Your task to perform on an android device: Add "logitech g pro" to the cart on amazon.com Image 0: 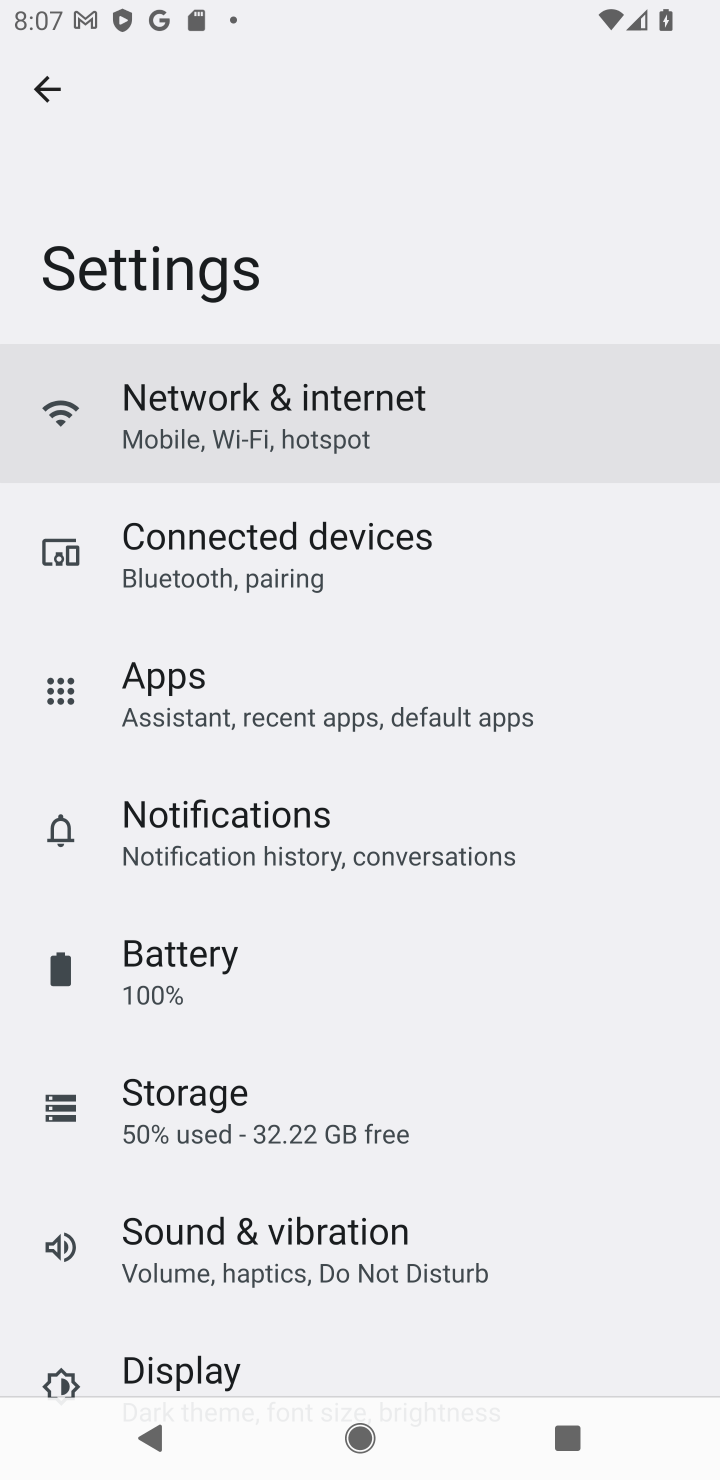
Step 0: press home button
Your task to perform on an android device: Add "logitech g pro" to the cart on amazon.com Image 1: 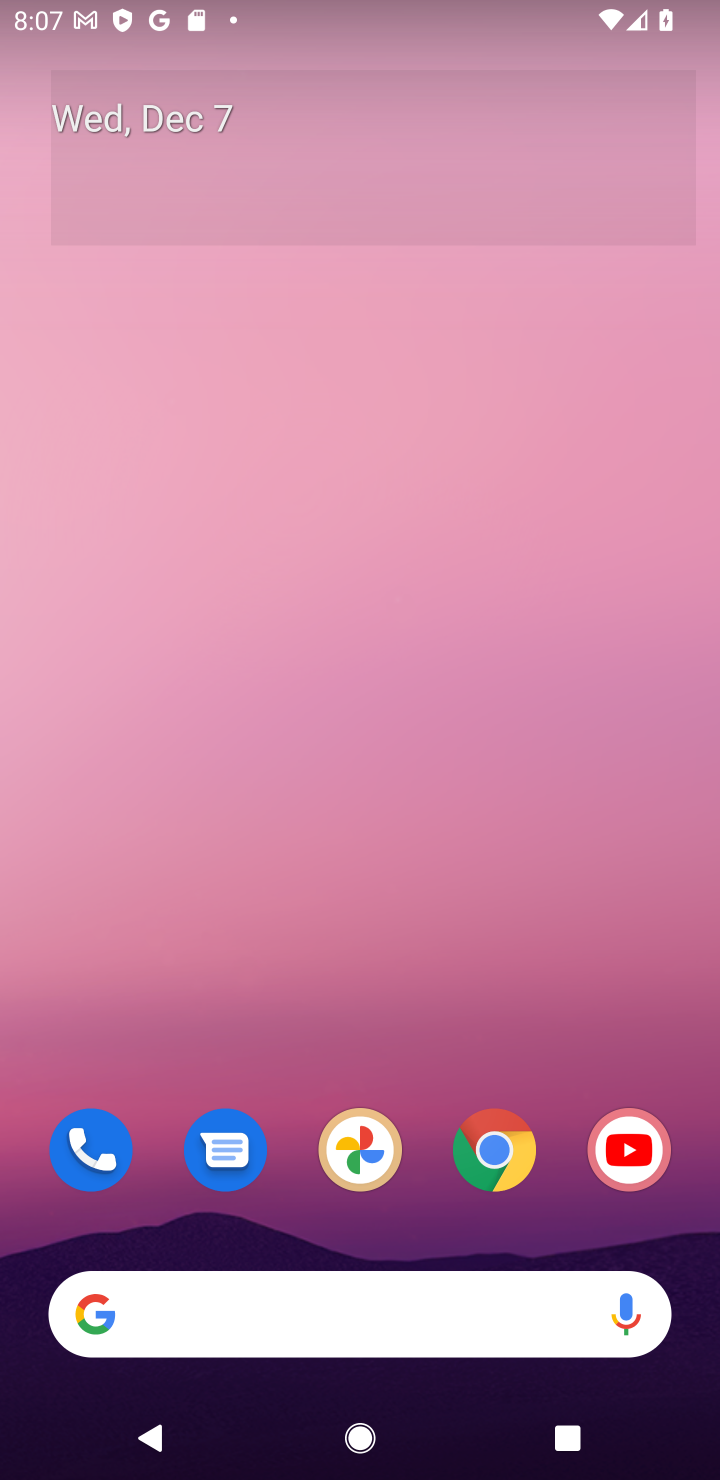
Step 1: click (505, 1141)
Your task to perform on an android device: Add "logitech g pro" to the cart on amazon.com Image 2: 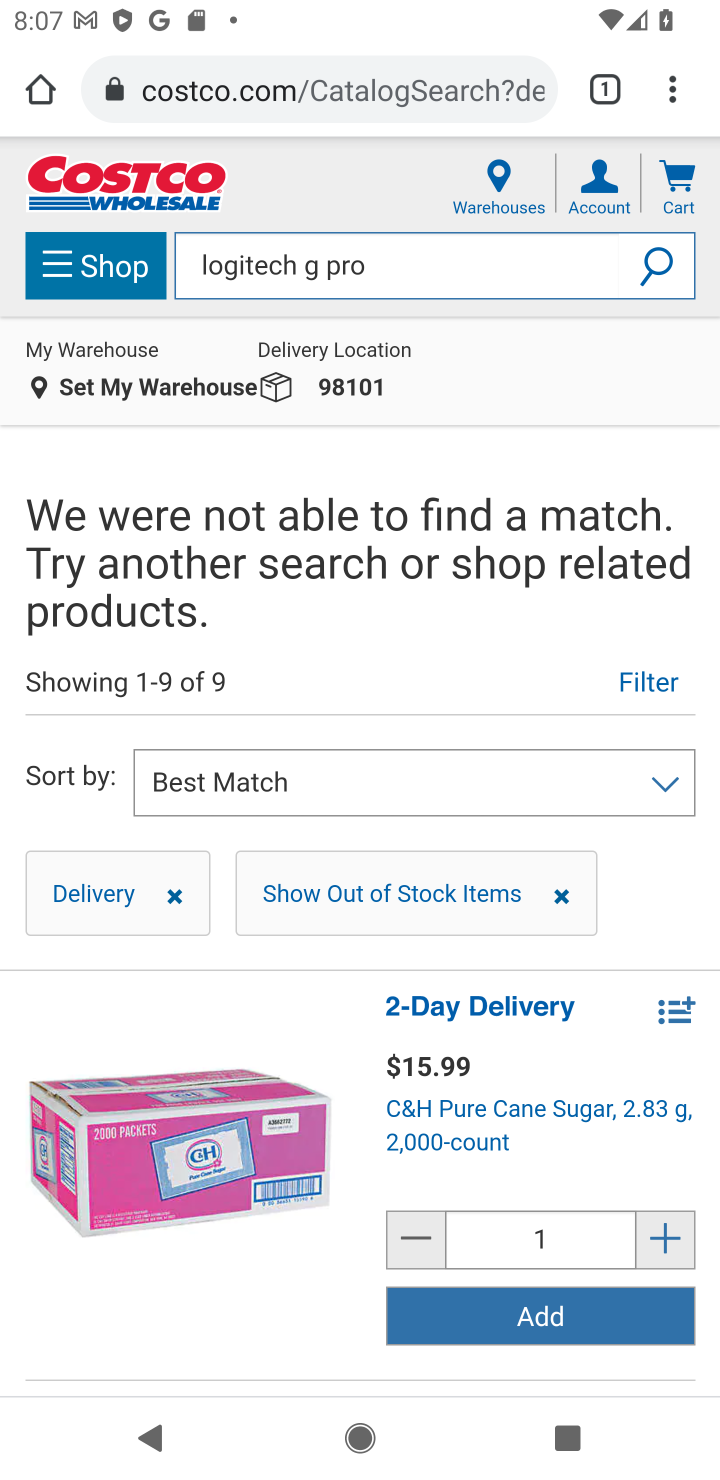
Step 2: click (367, 86)
Your task to perform on an android device: Add "logitech g pro" to the cart on amazon.com Image 3: 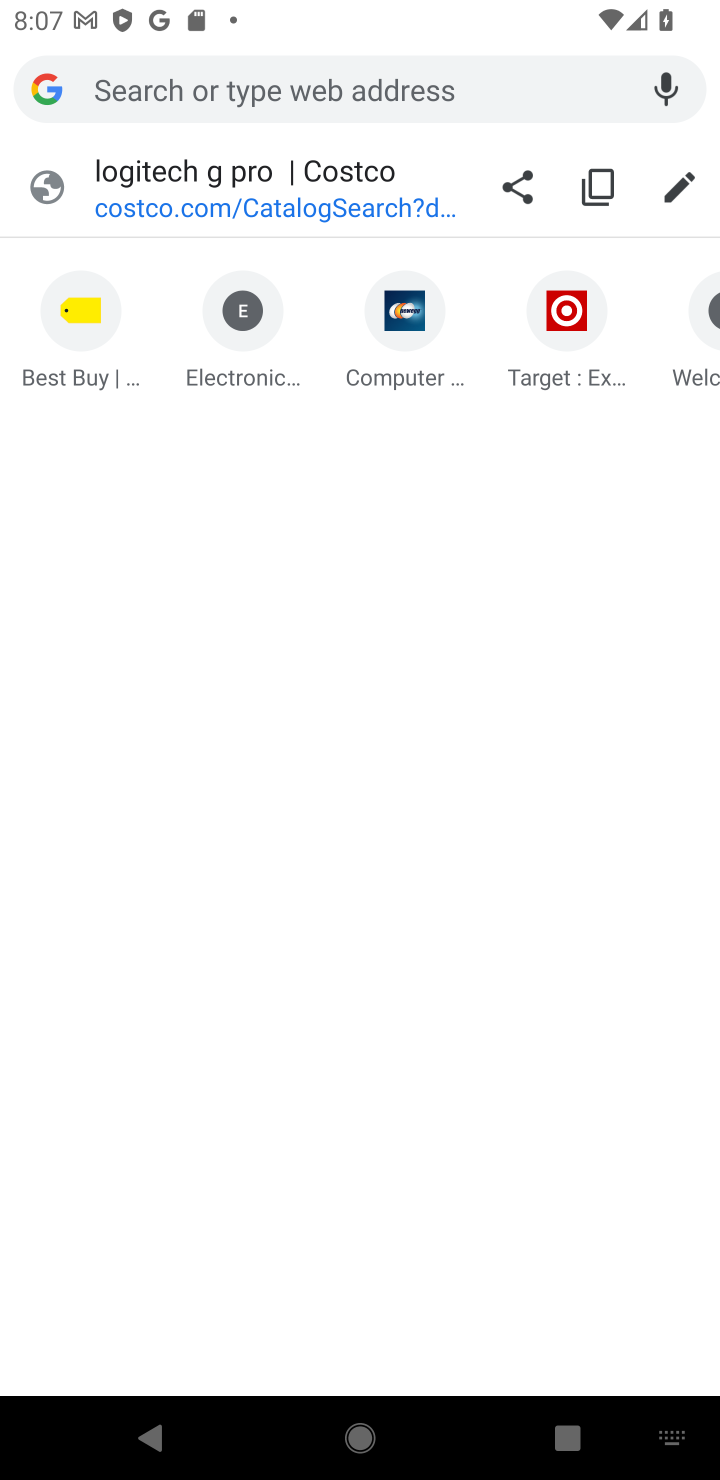
Step 3: type "amazon.com"
Your task to perform on an android device: Add "logitech g pro" to the cart on amazon.com Image 4: 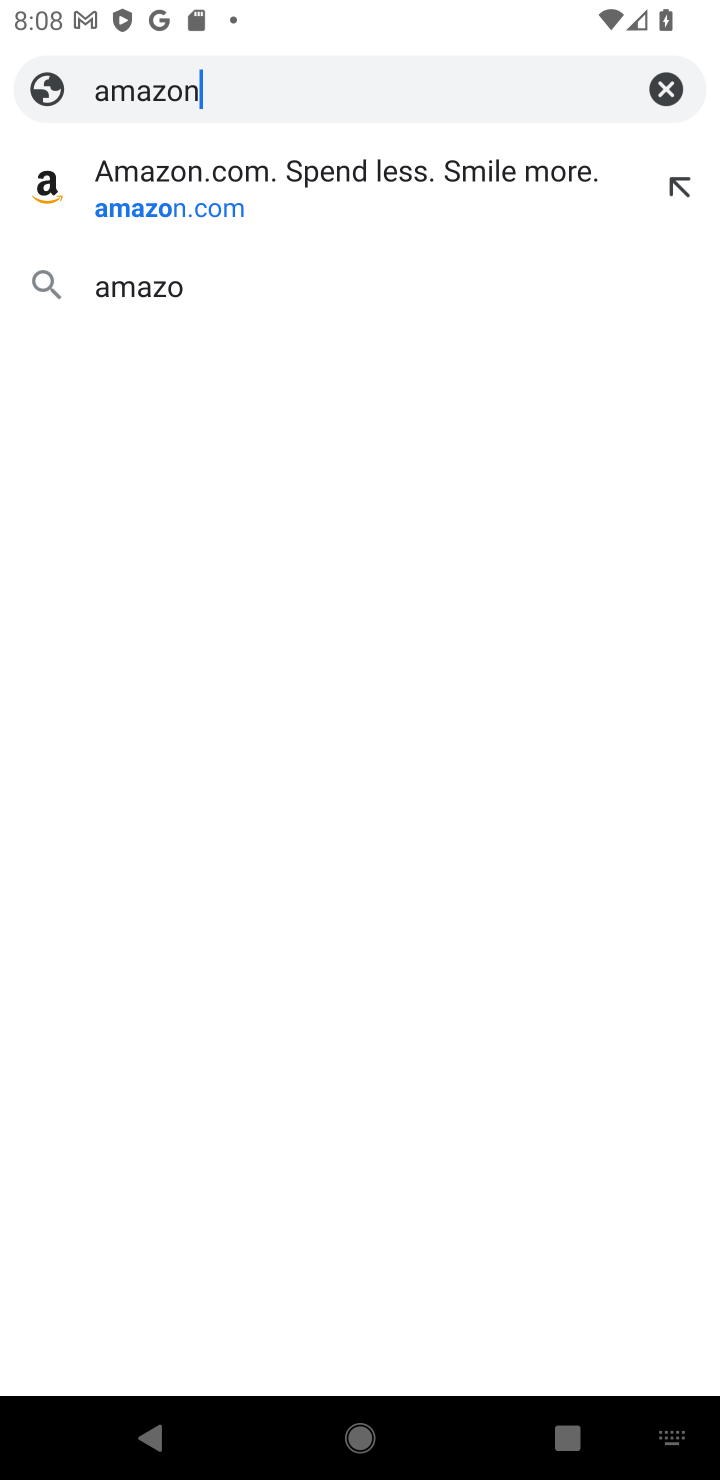
Step 4: press enter
Your task to perform on an android device: Add "logitech g pro" to the cart on amazon.com Image 5: 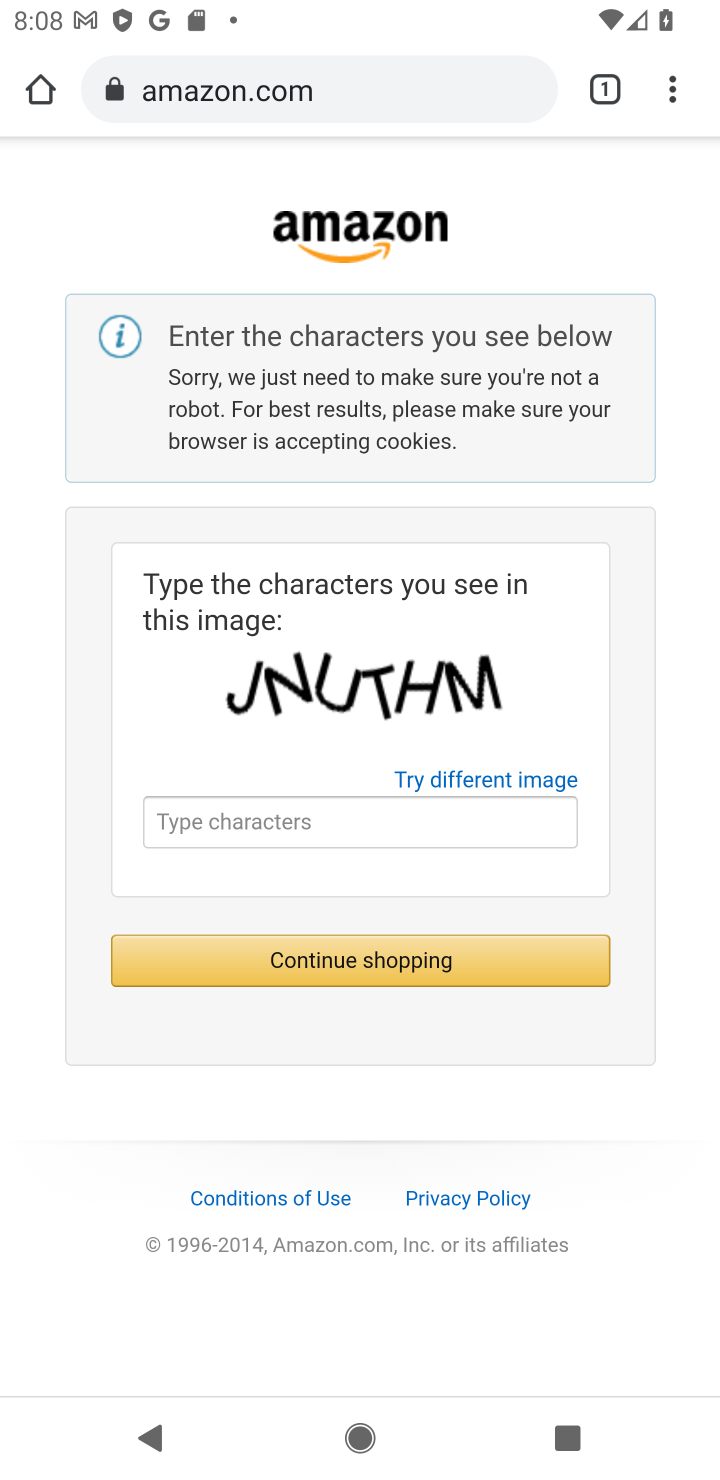
Step 5: click (384, 98)
Your task to perform on an android device: Add "logitech g pro" to the cart on amazon.com Image 6: 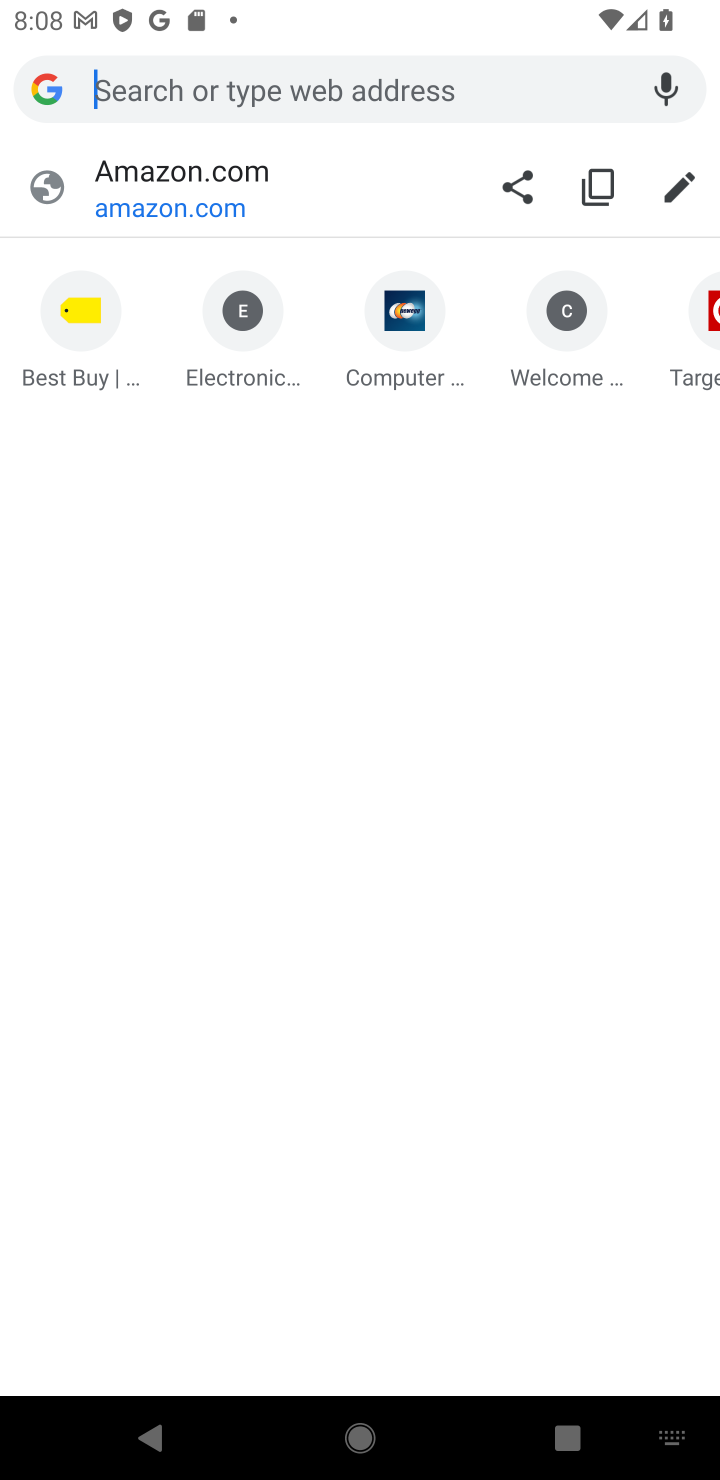
Step 6: type "amazon"
Your task to perform on an android device: Add "logitech g pro" to the cart on amazon.com Image 7: 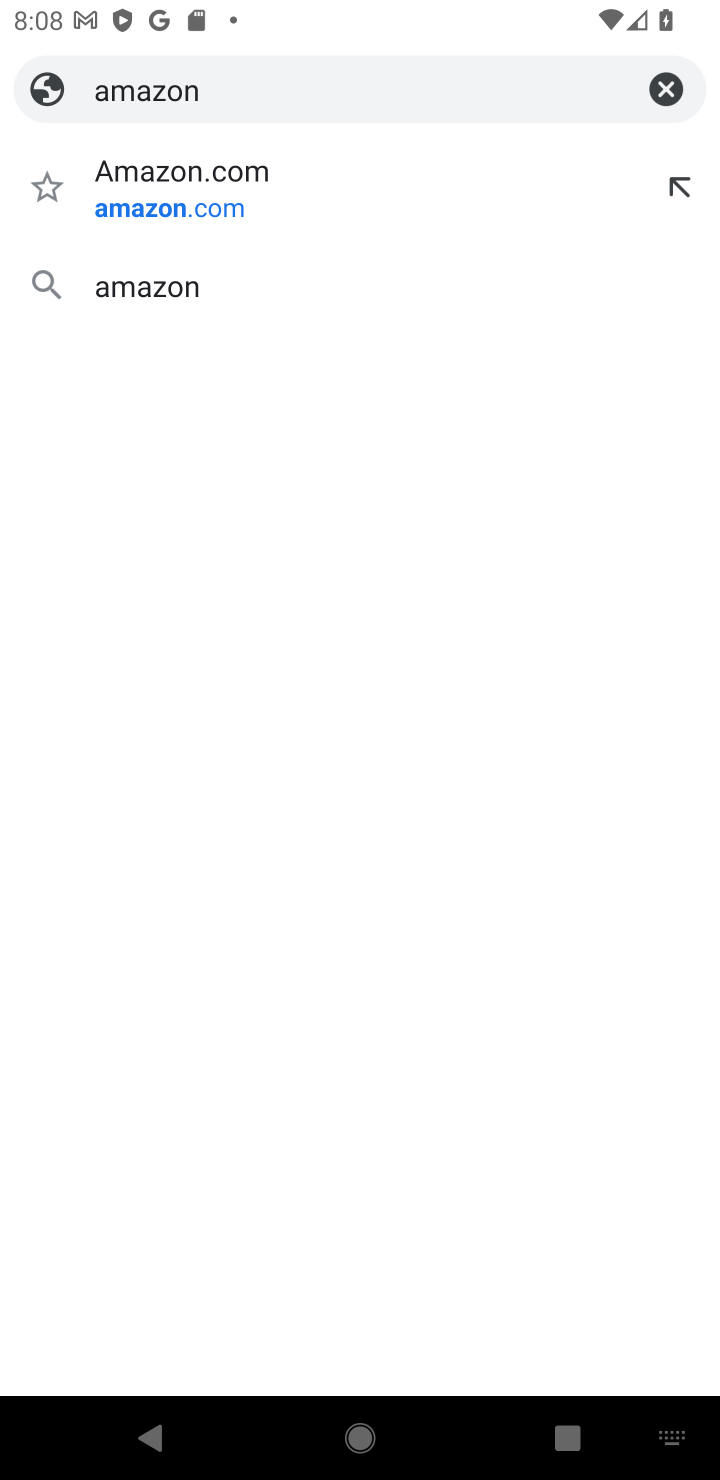
Step 7: click (148, 281)
Your task to perform on an android device: Add "logitech g pro" to the cart on amazon.com Image 8: 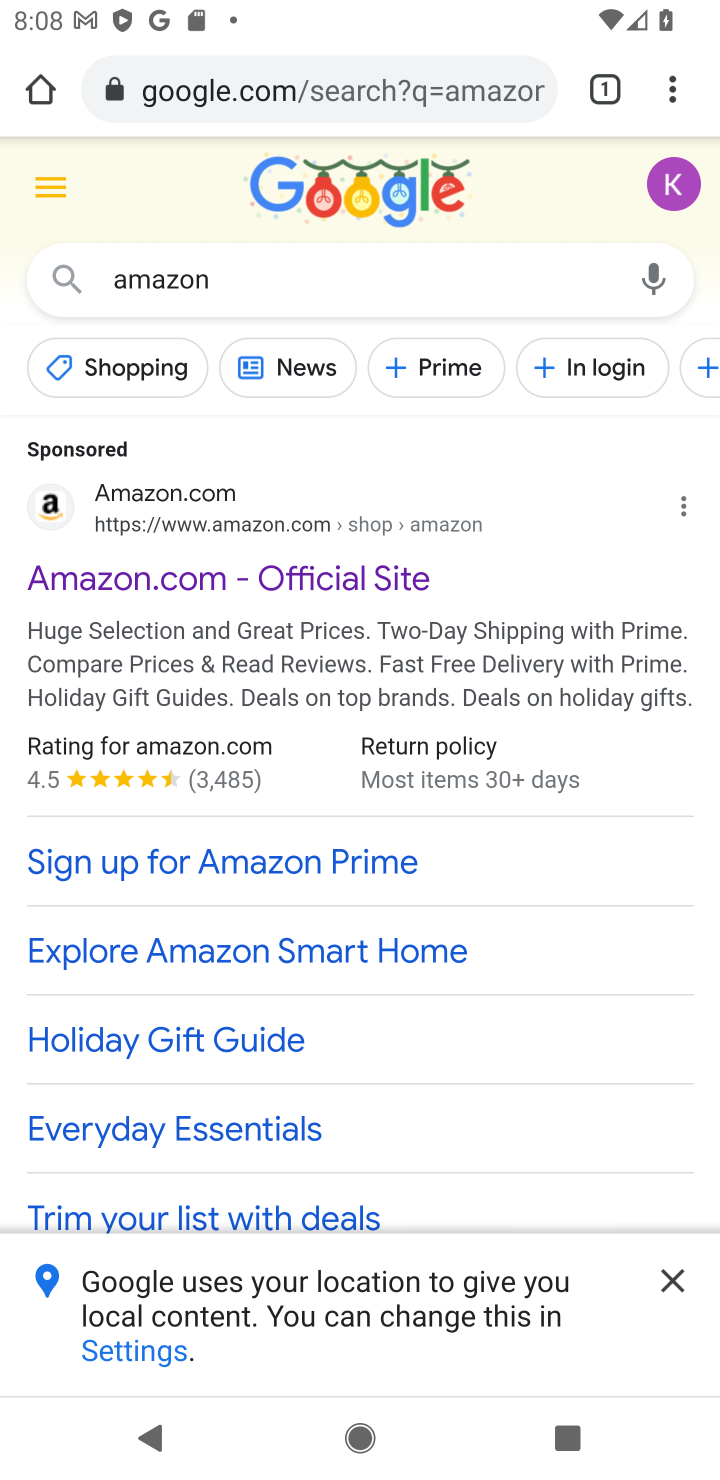
Step 8: drag from (684, 903) to (690, 484)
Your task to perform on an android device: Add "logitech g pro" to the cart on amazon.com Image 9: 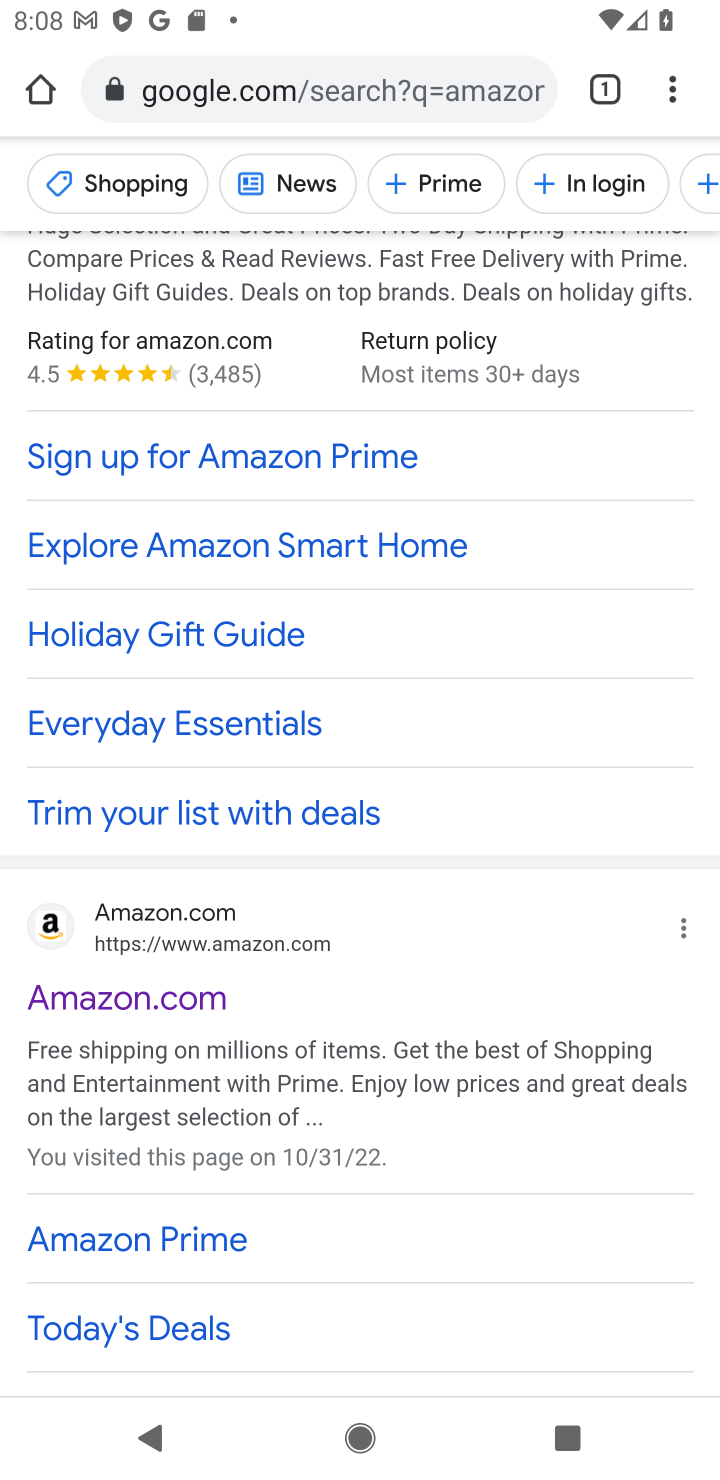
Step 9: click (233, 942)
Your task to perform on an android device: Add "logitech g pro" to the cart on amazon.com Image 10: 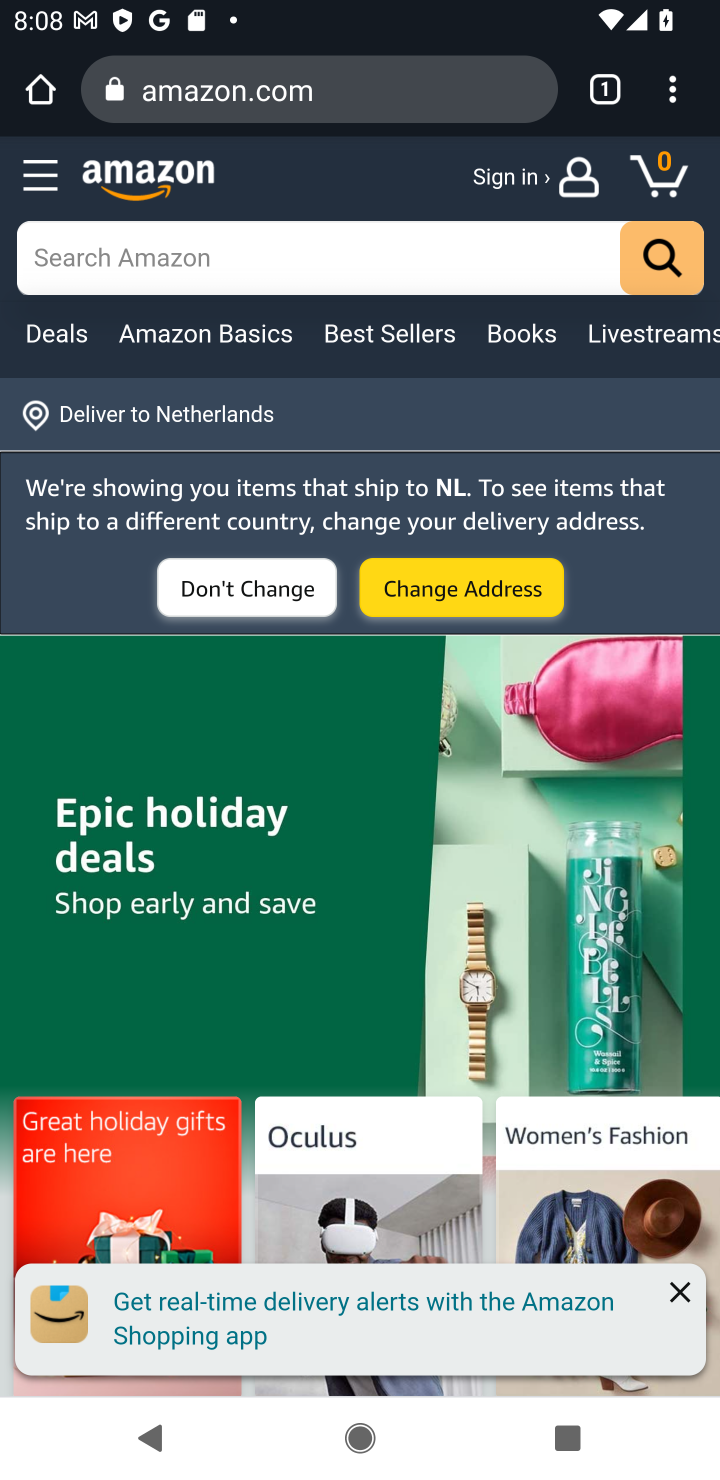
Step 10: click (199, 259)
Your task to perform on an android device: Add "logitech g pro" to the cart on amazon.com Image 11: 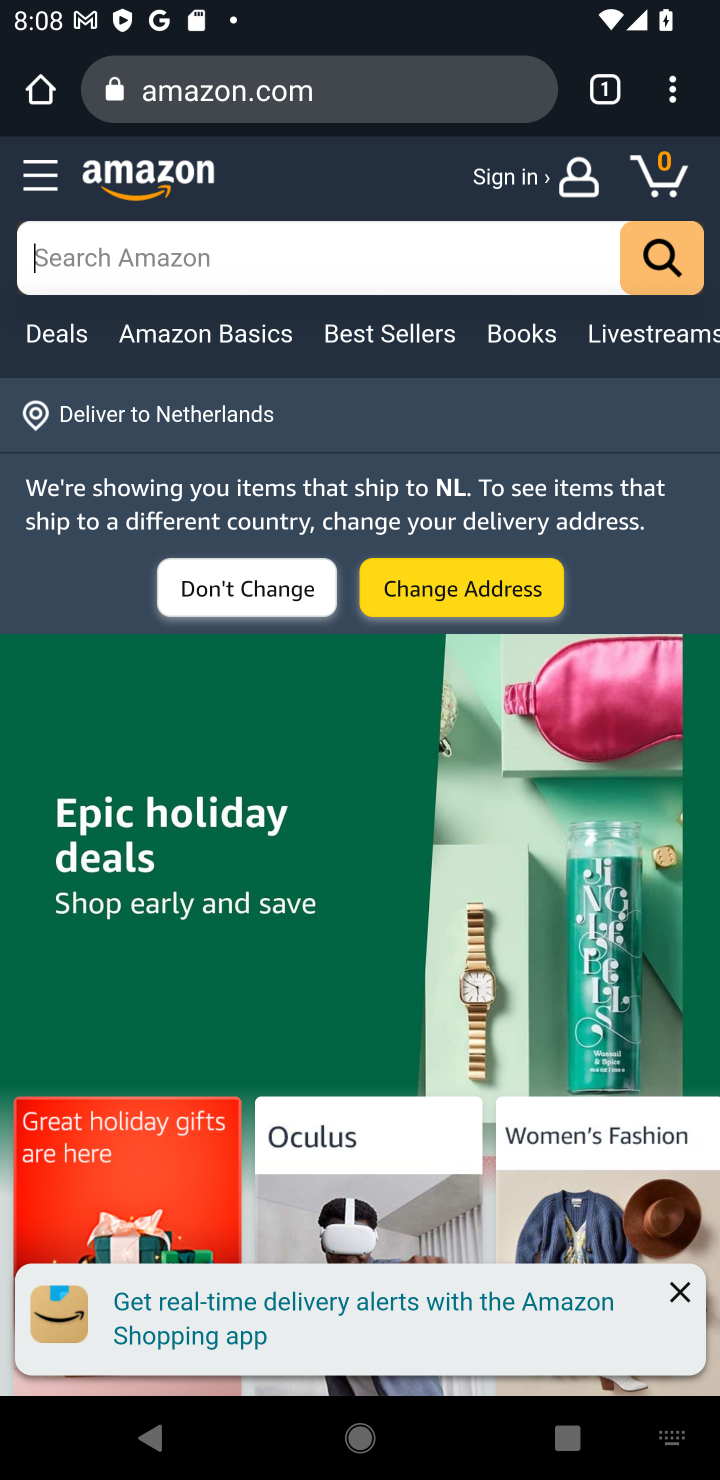
Step 11: press enter
Your task to perform on an android device: Add "logitech g pro" to the cart on amazon.com Image 12: 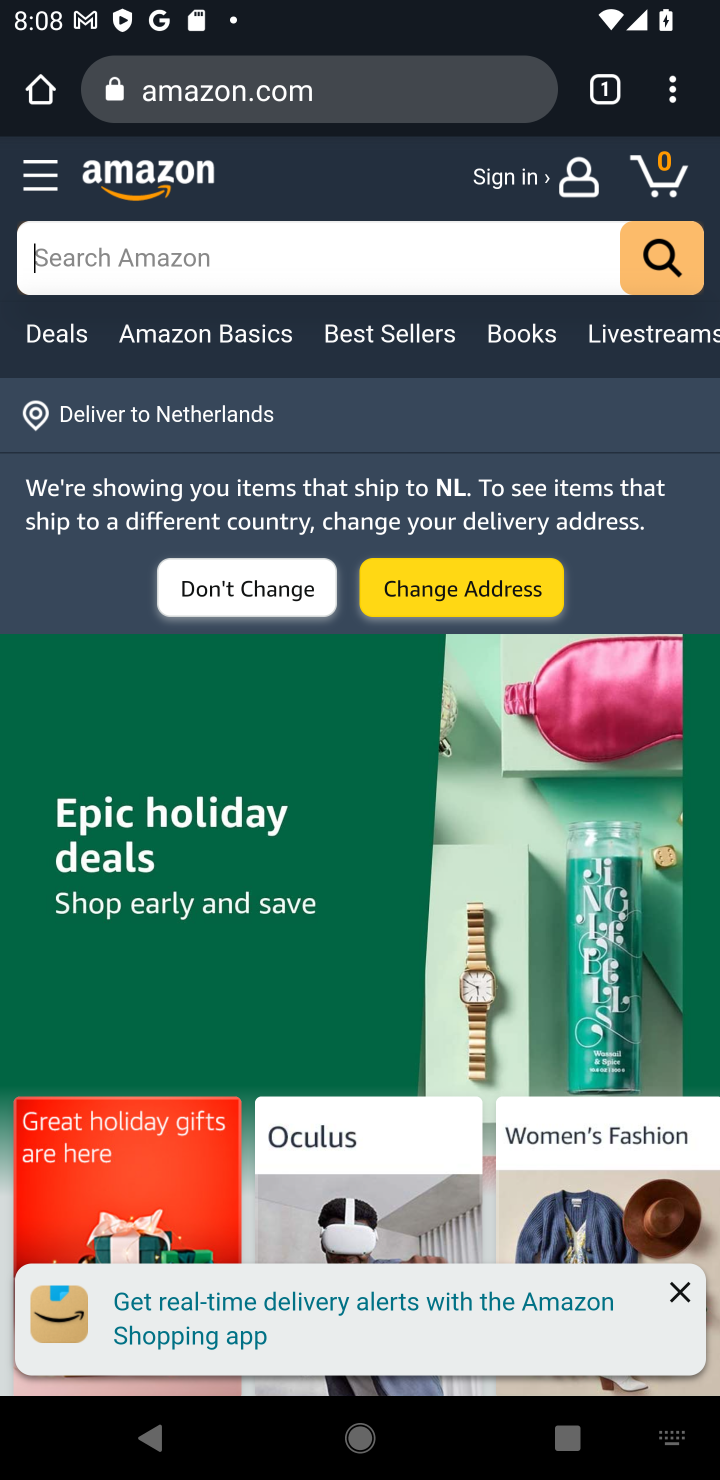
Step 12: type "logitech g pro"
Your task to perform on an android device: Add "logitech g pro" to the cart on amazon.com Image 13: 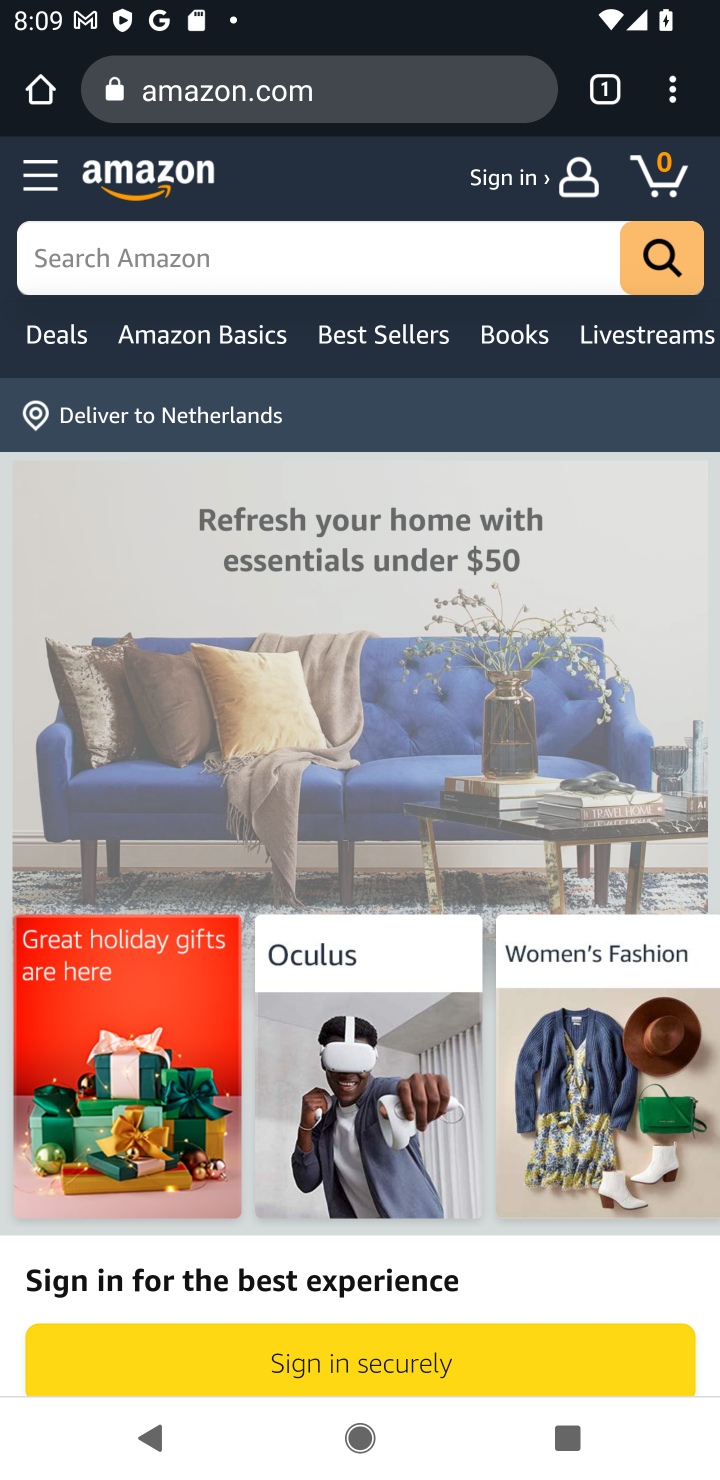
Step 13: click (434, 250)
Your task to perform on an android device: Add "logitech g pro" to the cart on amazon.com Image 14: 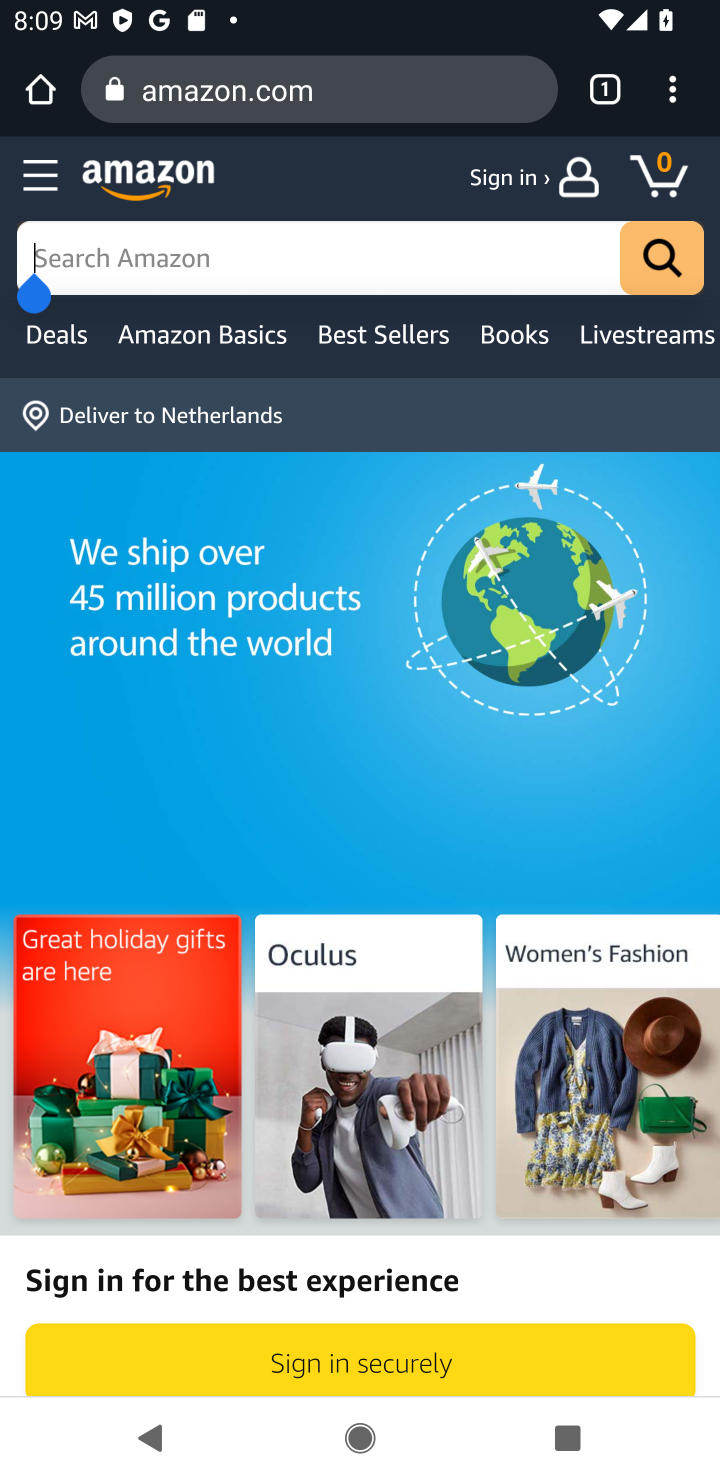
Step 14: press enter
Your task to perform on an android device: Add "logitech g pro" to the cart on amazon.com Image 15: 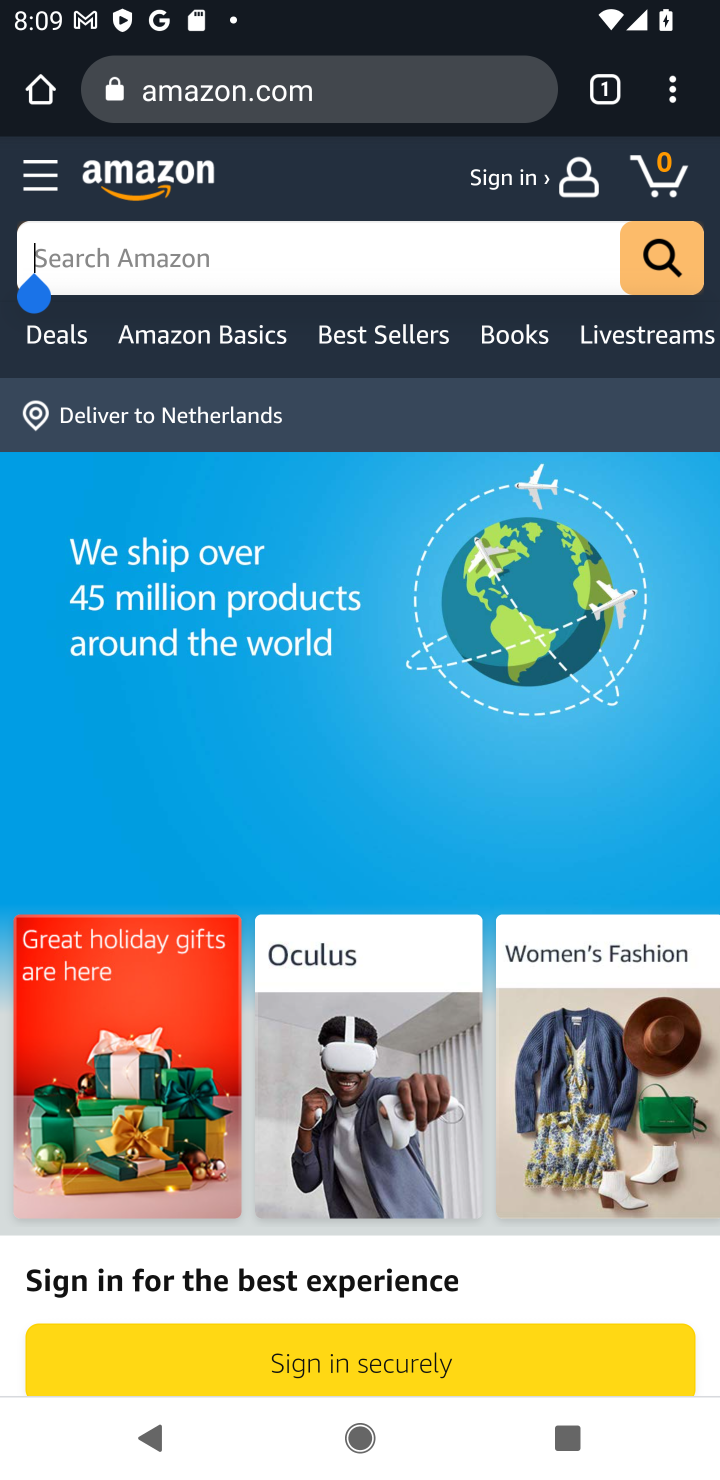
Step 15: type "logitech g pro"
Your task to perform on an android device: Add "logitech g pro" to the cart on amazon.com Image 16: 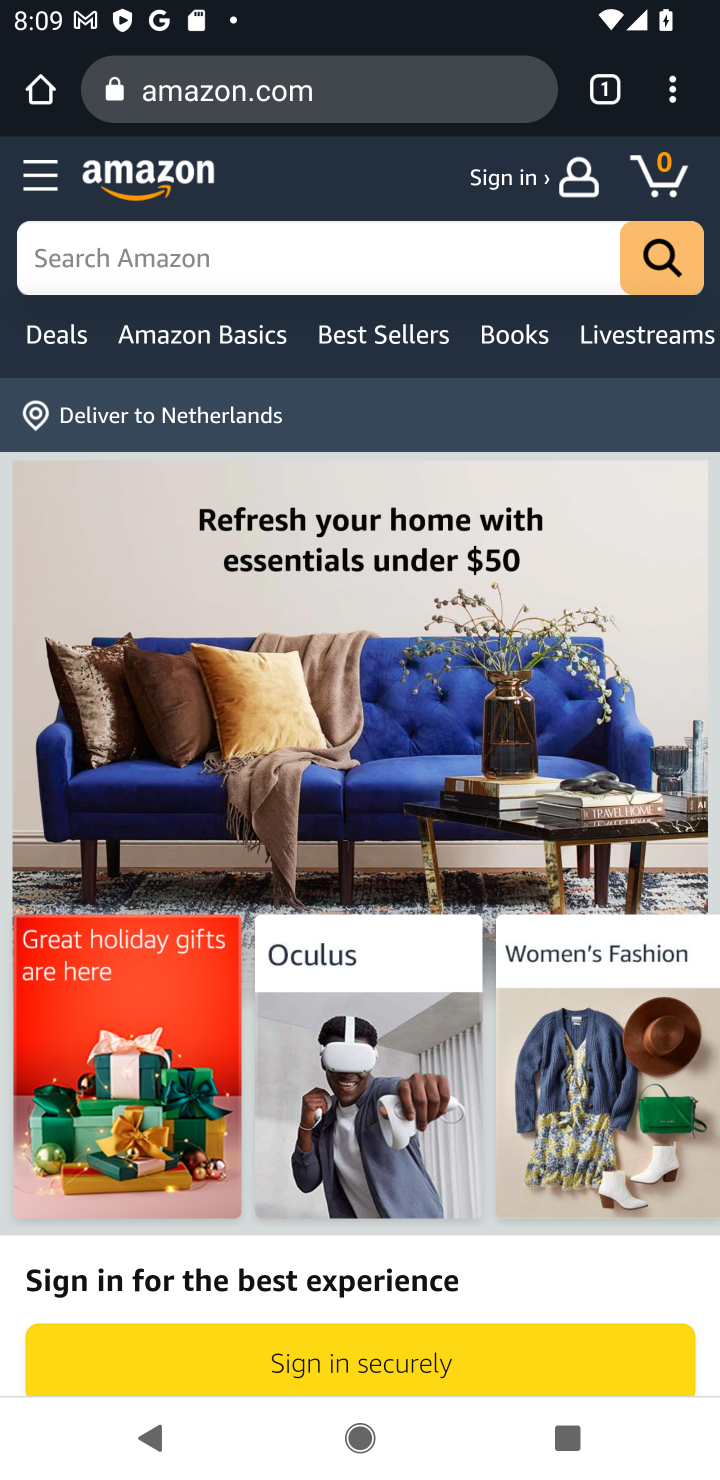
Step 16: task complete